Your task to perform on an android device: turn on airplane mode Image 0: 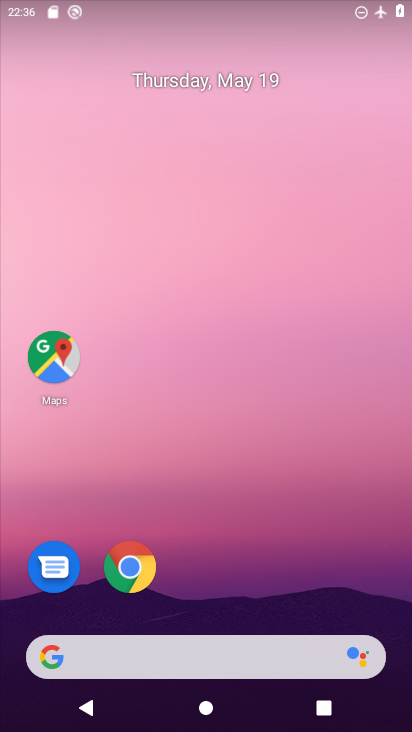
Step 0: drag from (213, 600) to (245, 69)
Your task to perform on an android device: turn on airplane mode Image 1: 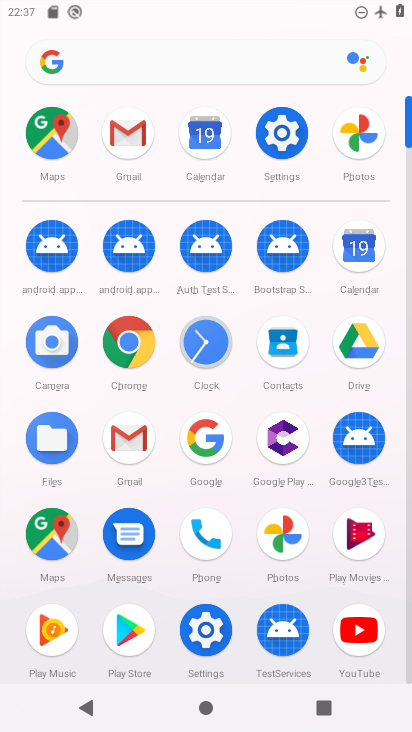
Step 1: task complete